Your task to perform on an android device: toggle pop-ups in chrome Image 0: 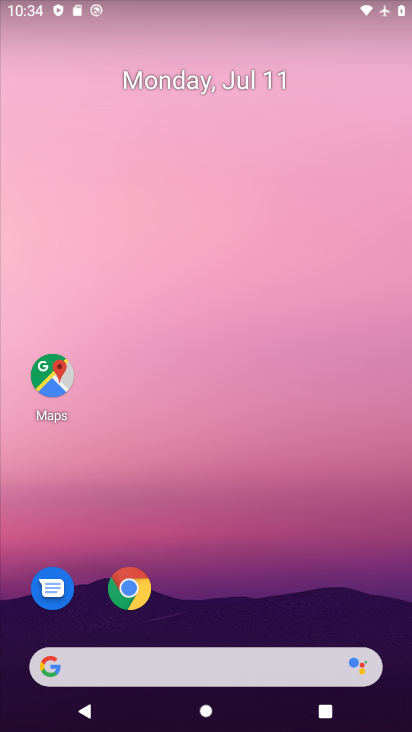
Step 0: click (132, 597)
Your task to perform on an android device: toggle pop-ups in chrome Image 1: 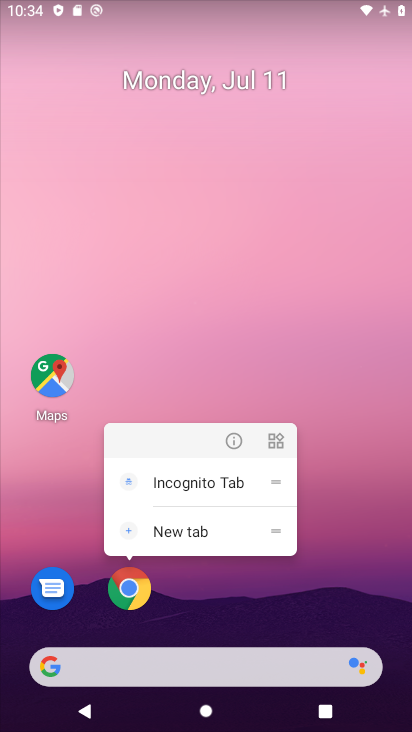
Step 1: click (133, 589)
Your task to perform on an android device: toggle pop-ups in chrome Image 2: 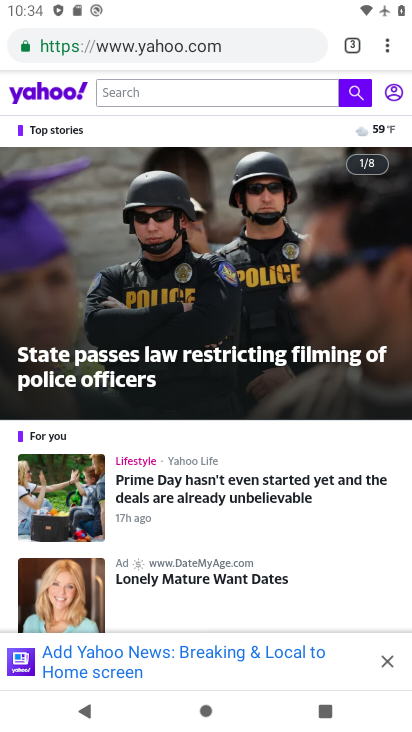
Step 2: drag from (388, 52) to (267, 546)
Your task to perform on an android device: toggle pop-ups in chrome Image 3: 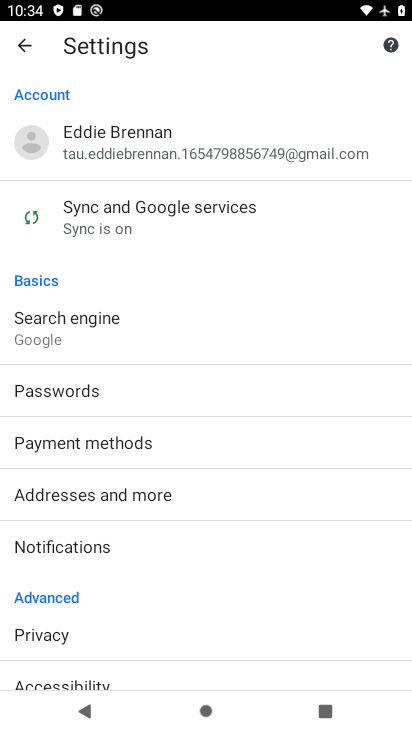
Step 3: drag from (205, 603) to (329, 199)
Your task to perform on an android device: toggle pop-ups in chrome Image 4: 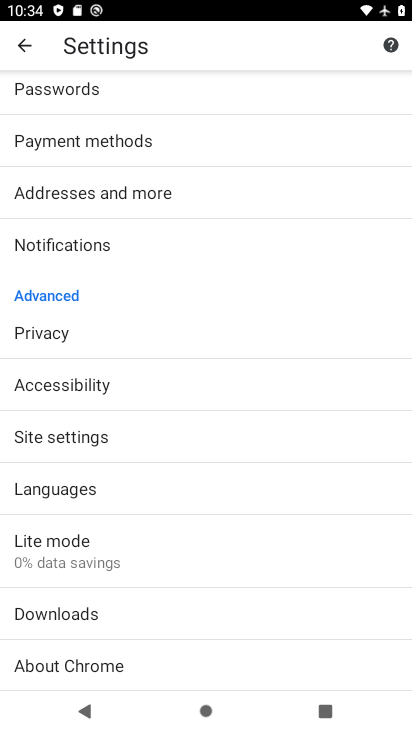
Step 4: click (93, 434)
Your task to perform on an android device: toggle pop-ups in chrome Image 5: 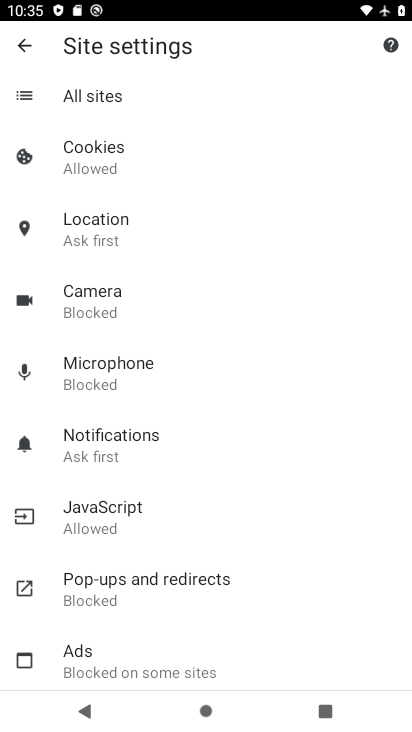
Step 5: click (123, 588)
Your task to perform on an android device: toggle pop-ups in chrome Image 6: 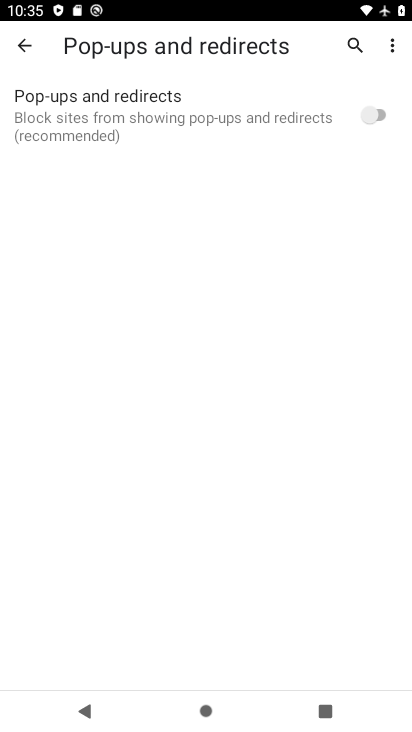
Step 6: click (384, 115)
Your task to perform on an android device: toggle pop-ups in chrome Image 7: 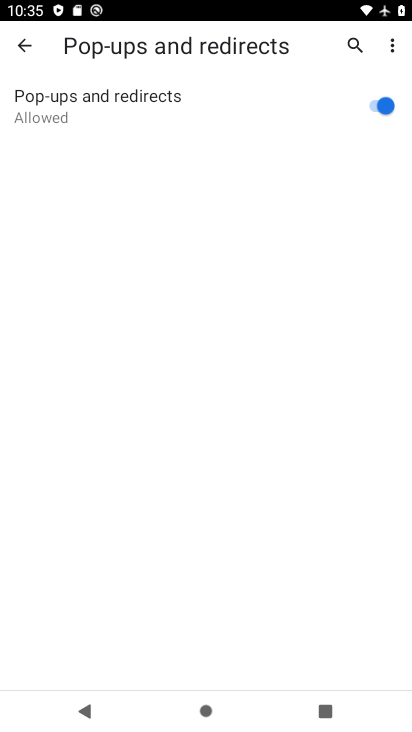
Step 7: task complete